Your task to perform on an android device: open app "Microsoft Outlook" (install if not already installed) and go to login screen Image 0: 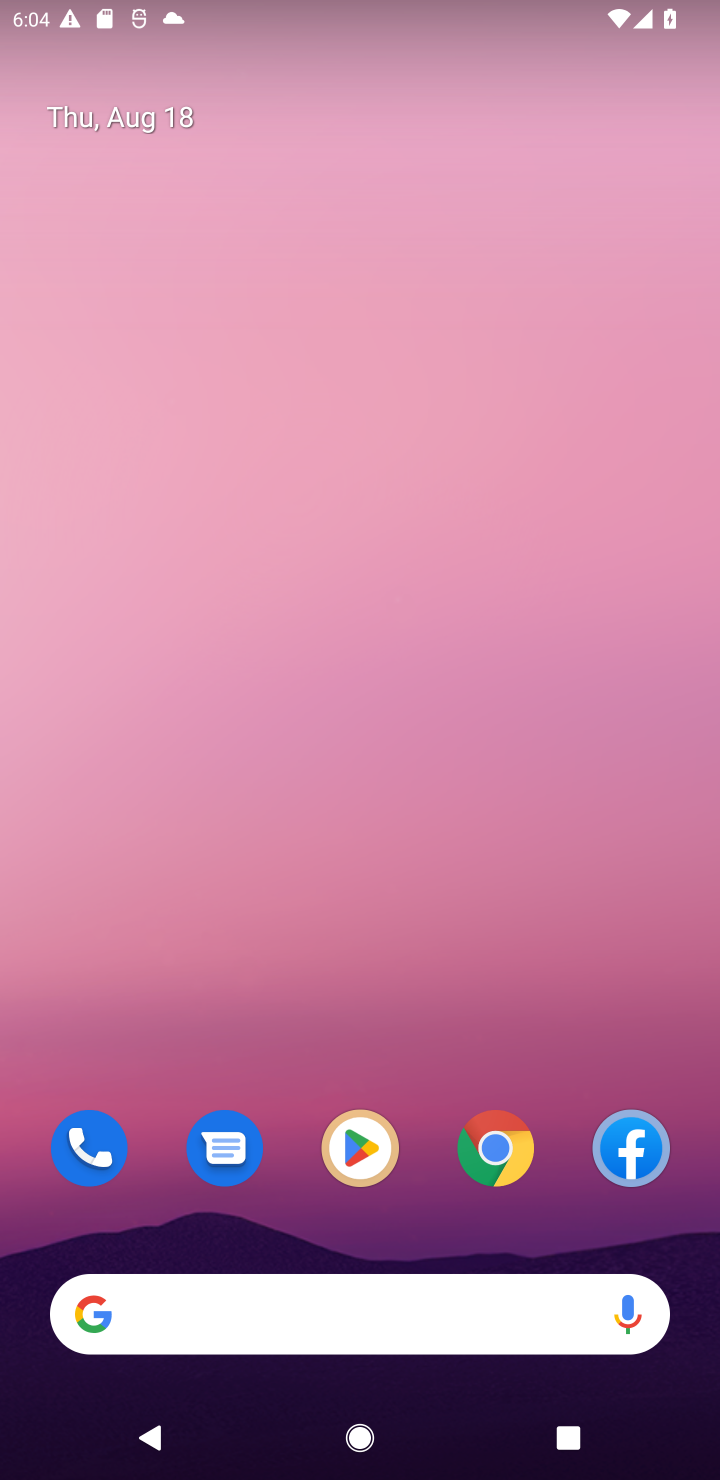
Step 0: drag from (251, 1086) to (41, 107)
Your task to perform on an android device: open app "Microsoft Outlook" (install if not already installed) and go to login screen Image 1: 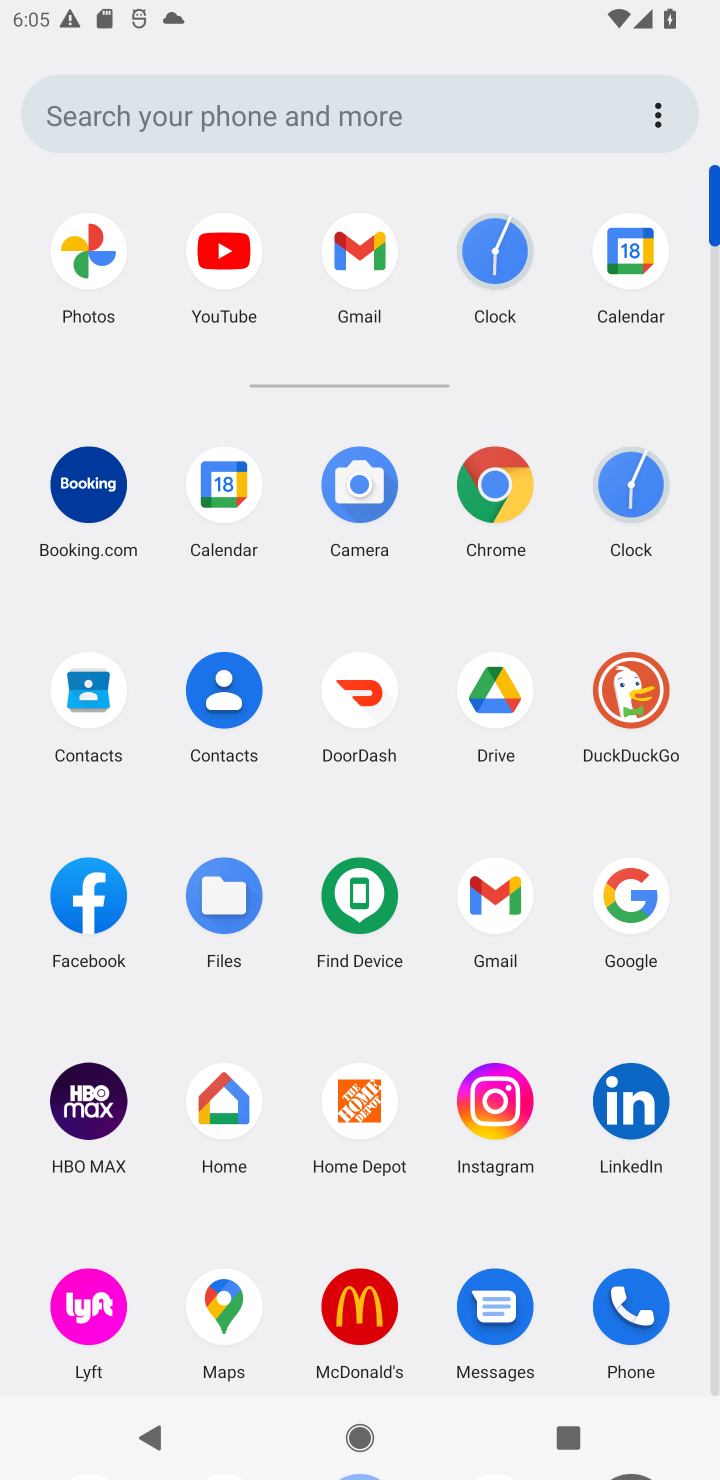
Step 1: drag from (657, 1111) to (565, 532)
Your task to perform on an android device: open app "Microsoft Outlook" (install if not already installed) and go to login screen Image 2: 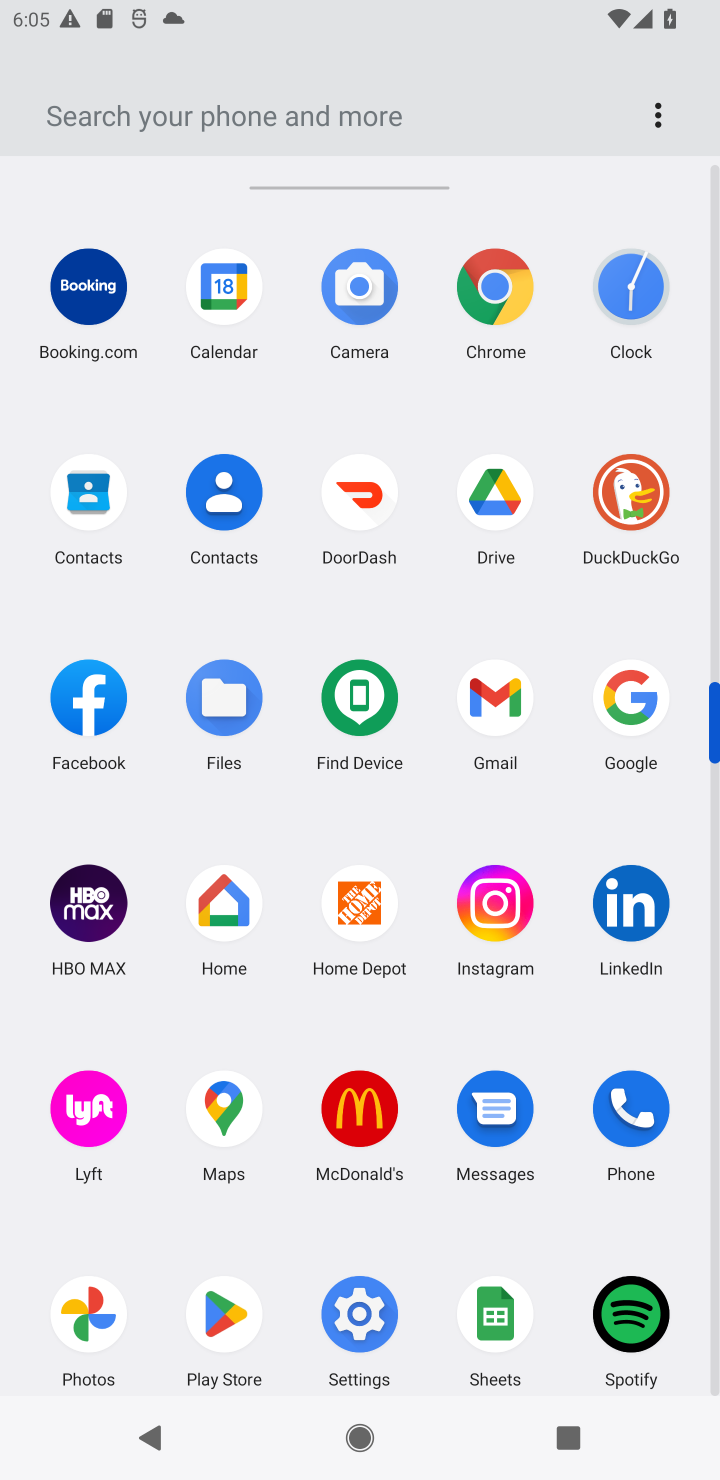
Step 2: click (232, 1315)
Your task to perform on an android device: open app "Microsoft Outlook" (install if not already installed) and go to login screen Image 3: 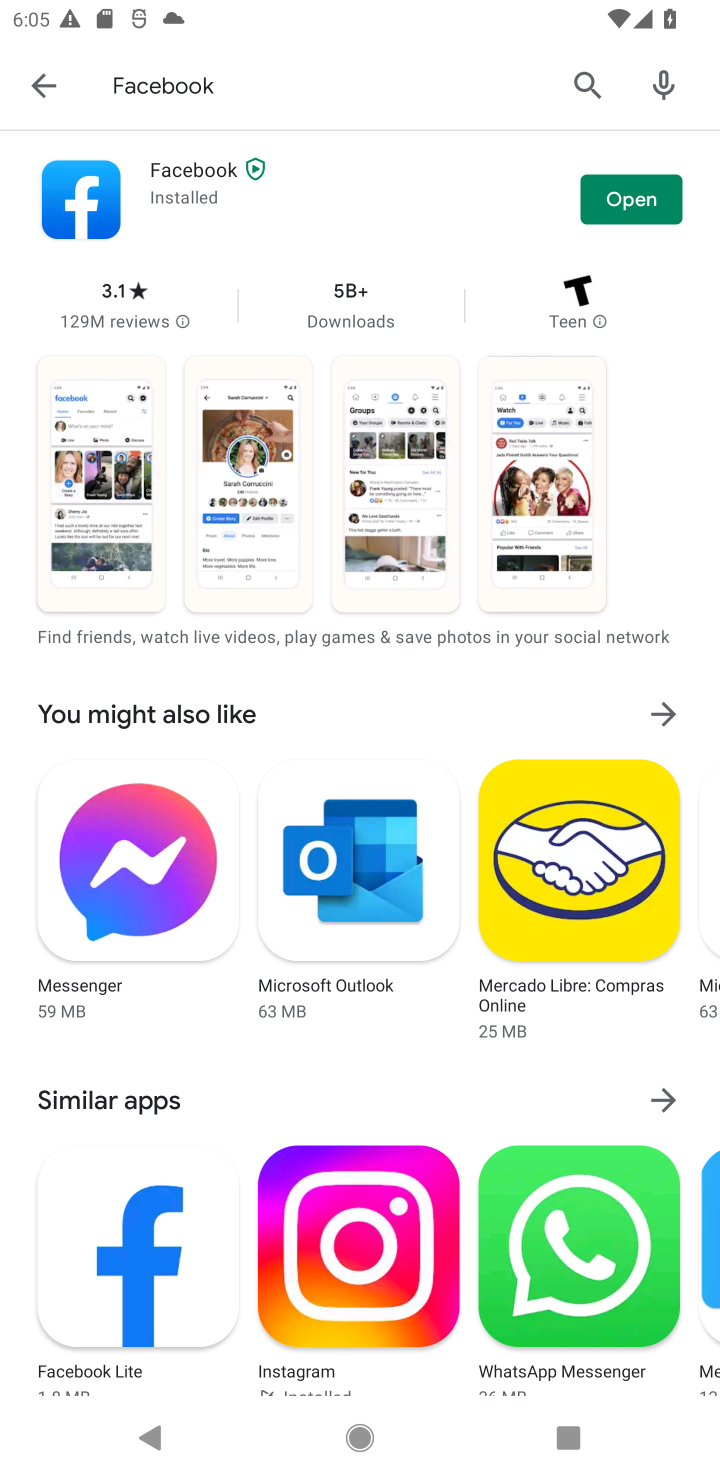
Step 3: press back button
Your task to perform on an android device: open app "Microsoft Outlook" (install if not already installed) and go to login screen Image 4: 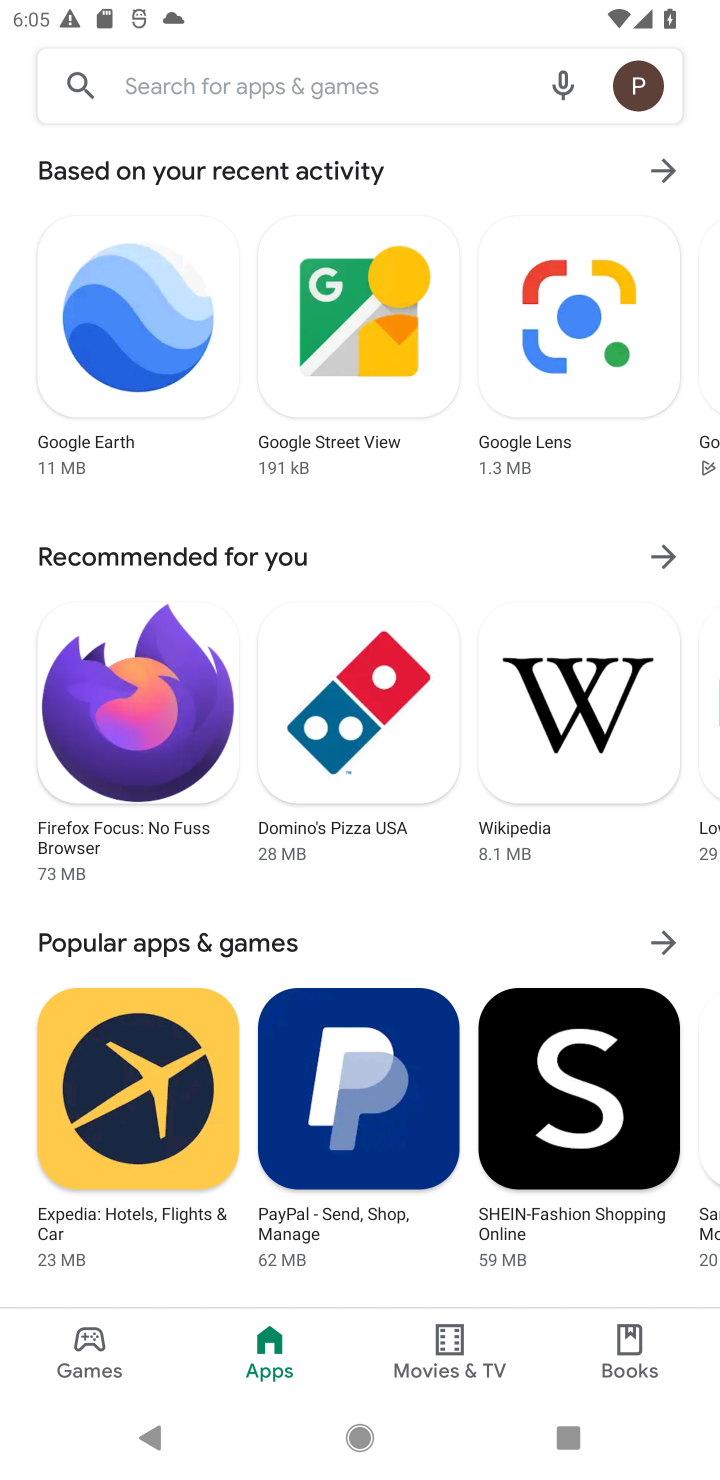
Step 4: click (329, 90)
Your task to perform on an android device: open app "Microsoft Outlook" (install if not already installed) and go to login screen Image 5: 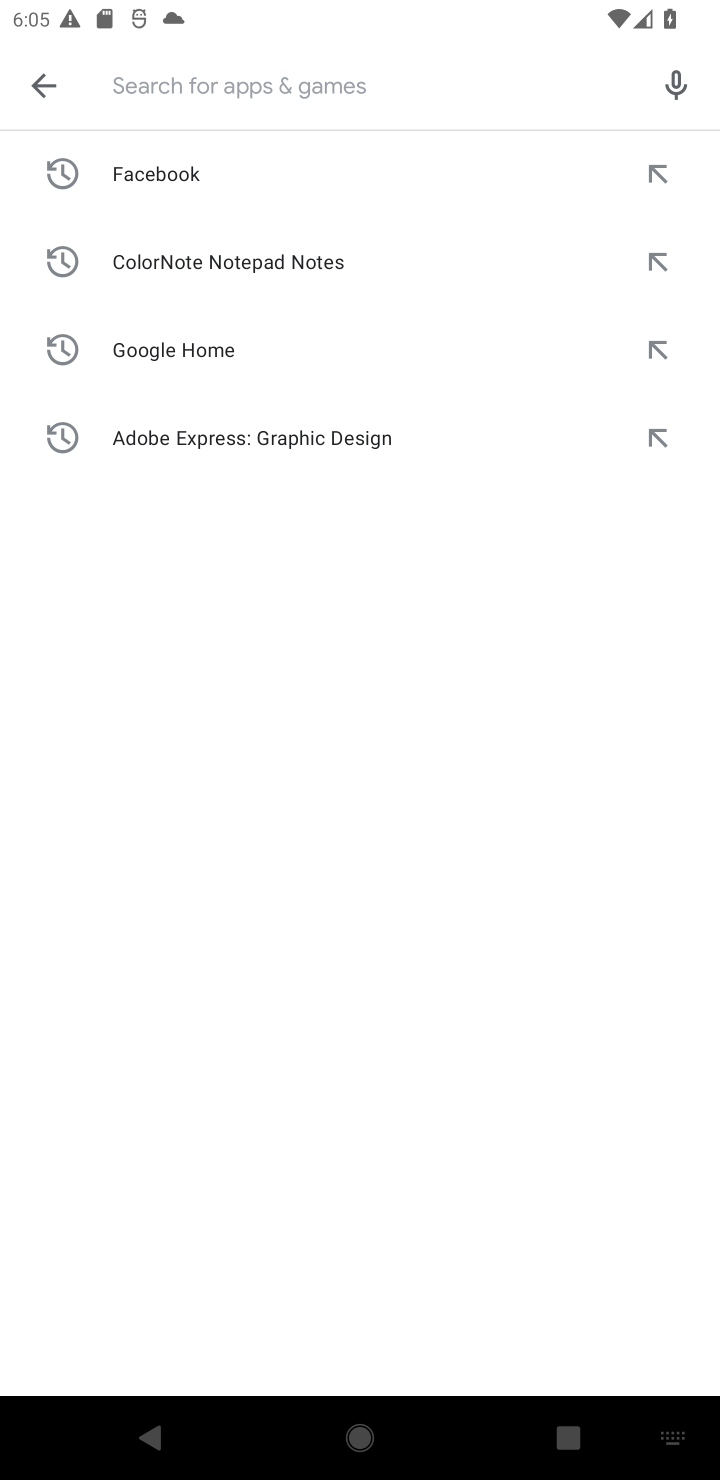
Step 5: type "Microsoft Outlook"
Your task to perform on an android device: open app "Microsoft Outlook" (install if not already installed) and go to login screen Image 6: 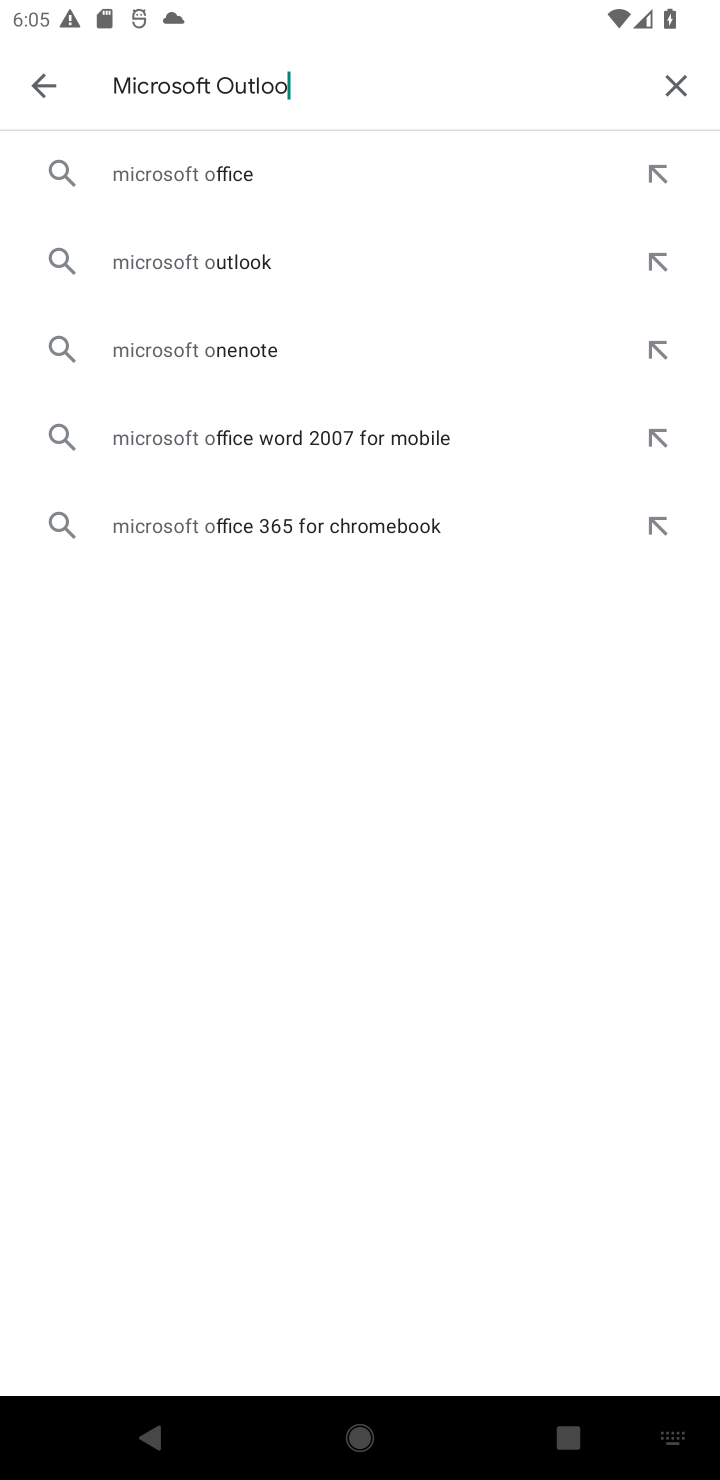
Step 6: press enter
Your task to perform on an android device: open app "Microsoft Outlook" (install if not already installed) and go to login screen Image 7: 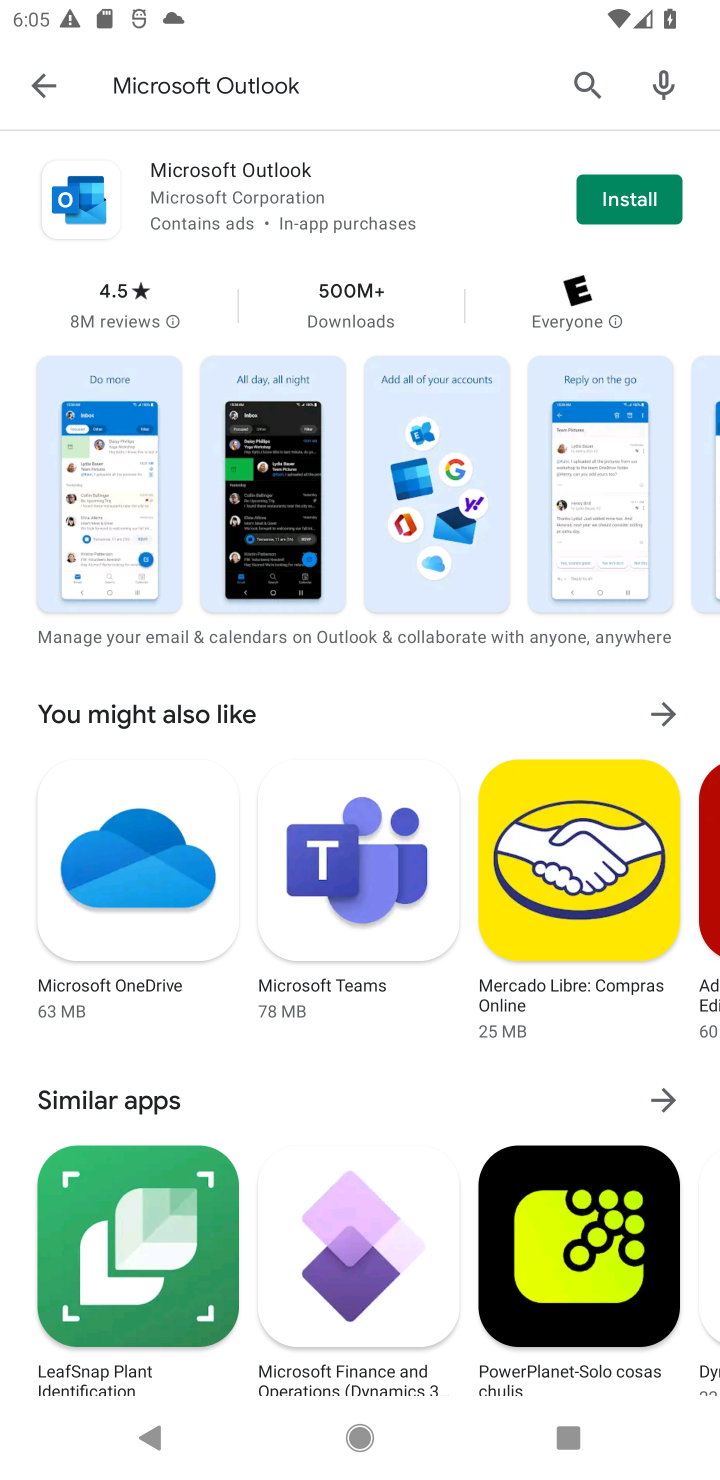
Step 7: click (623, 192)
Your task to perform on an android device: open app "Microsoft Outlook" (install if not already installed) and go to login screen Image 8: 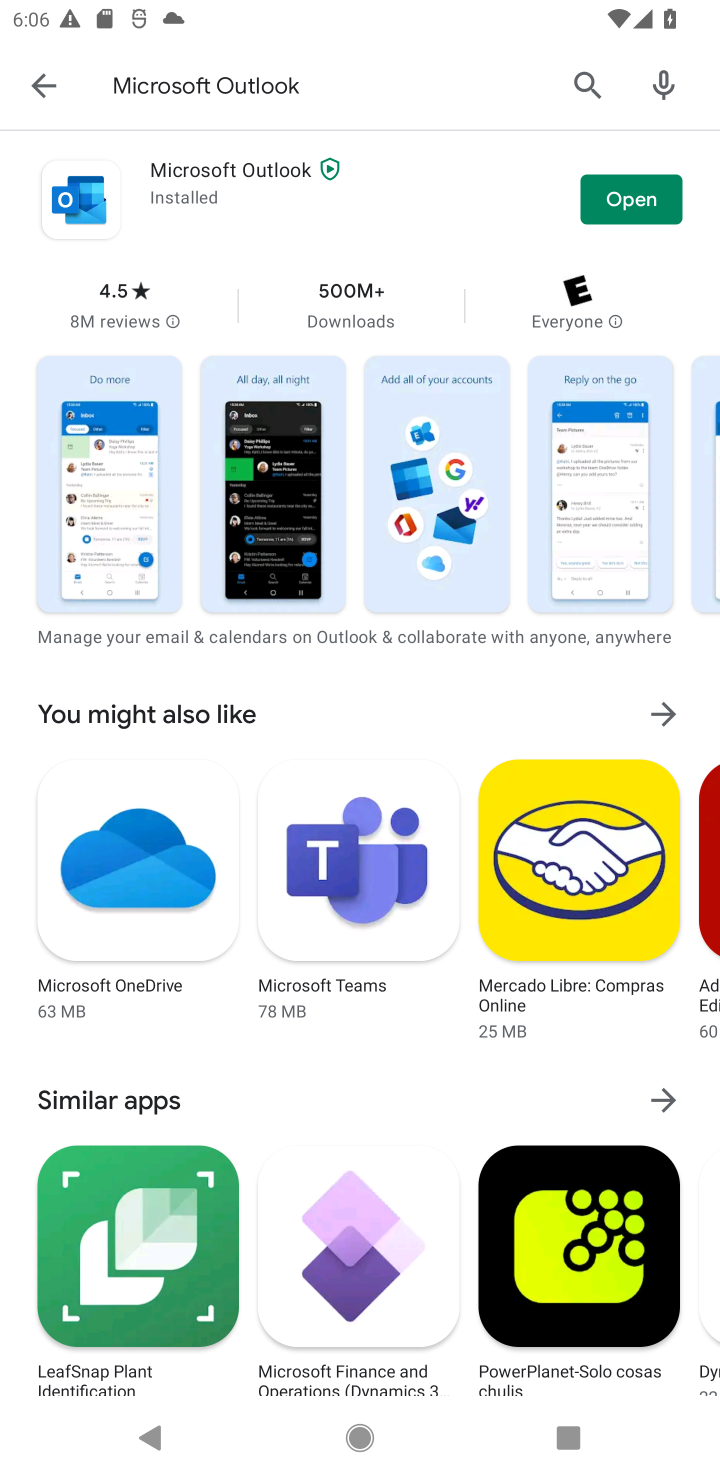
Step 8: click (658, 200)
Your task to perform on an android device: open app "Microsoft Outlook" (install if not already installed) and go to login screen Image 9: 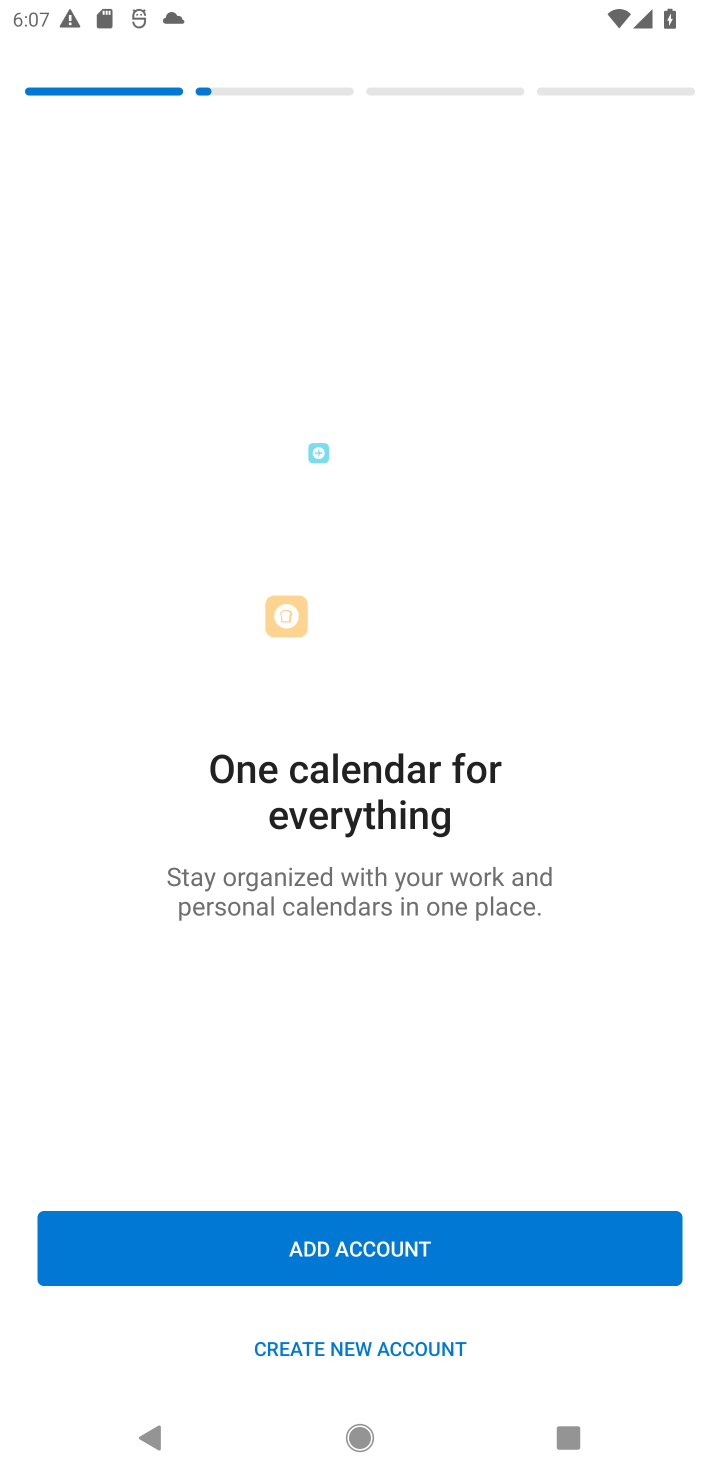
Step 9: click (324, 1243)
Your task to perform on an android device: open app "Microsoft Outlook" (install if not already installed) and go to login screen Image 10: 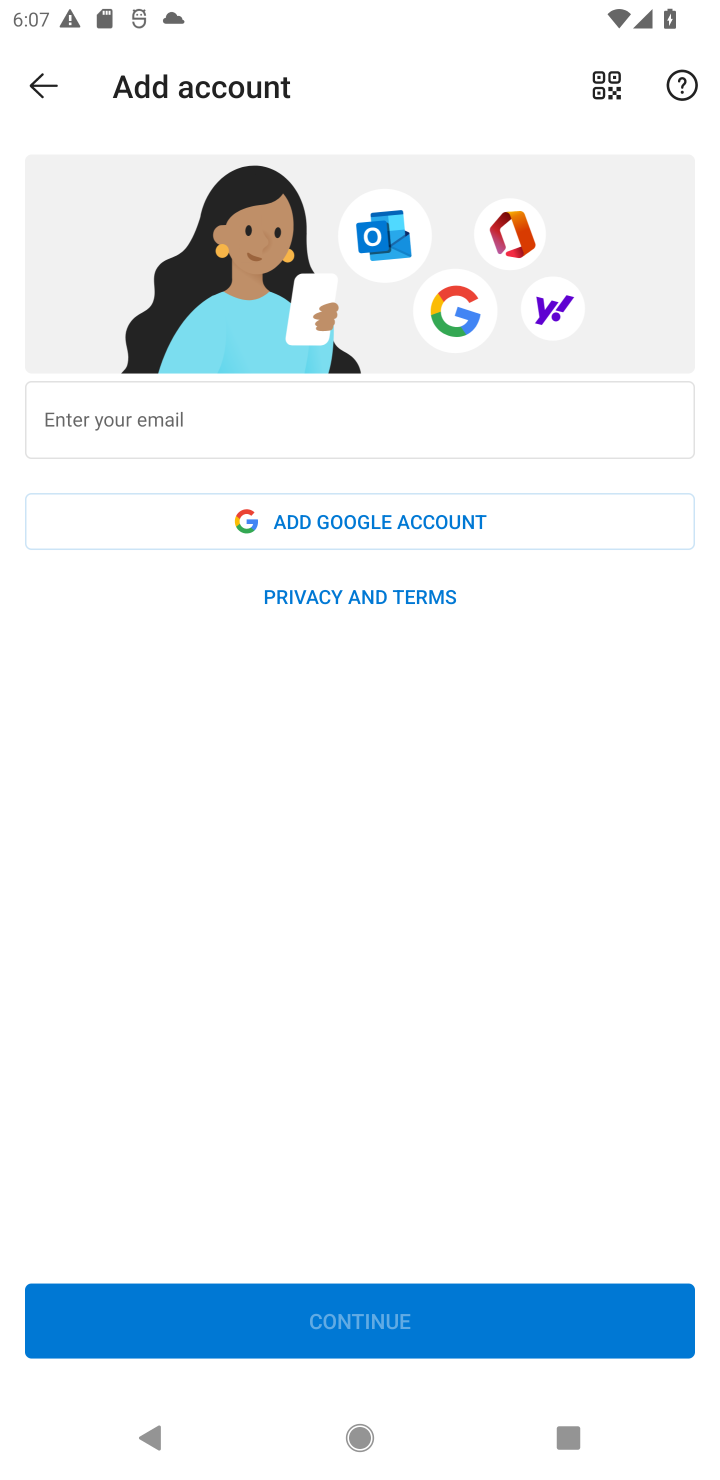
Step 10: click (413, 1332)
Your task to perform on an android device: open app "Microsoft Outlook" (install if not already installed) and go to login screen Image 11: 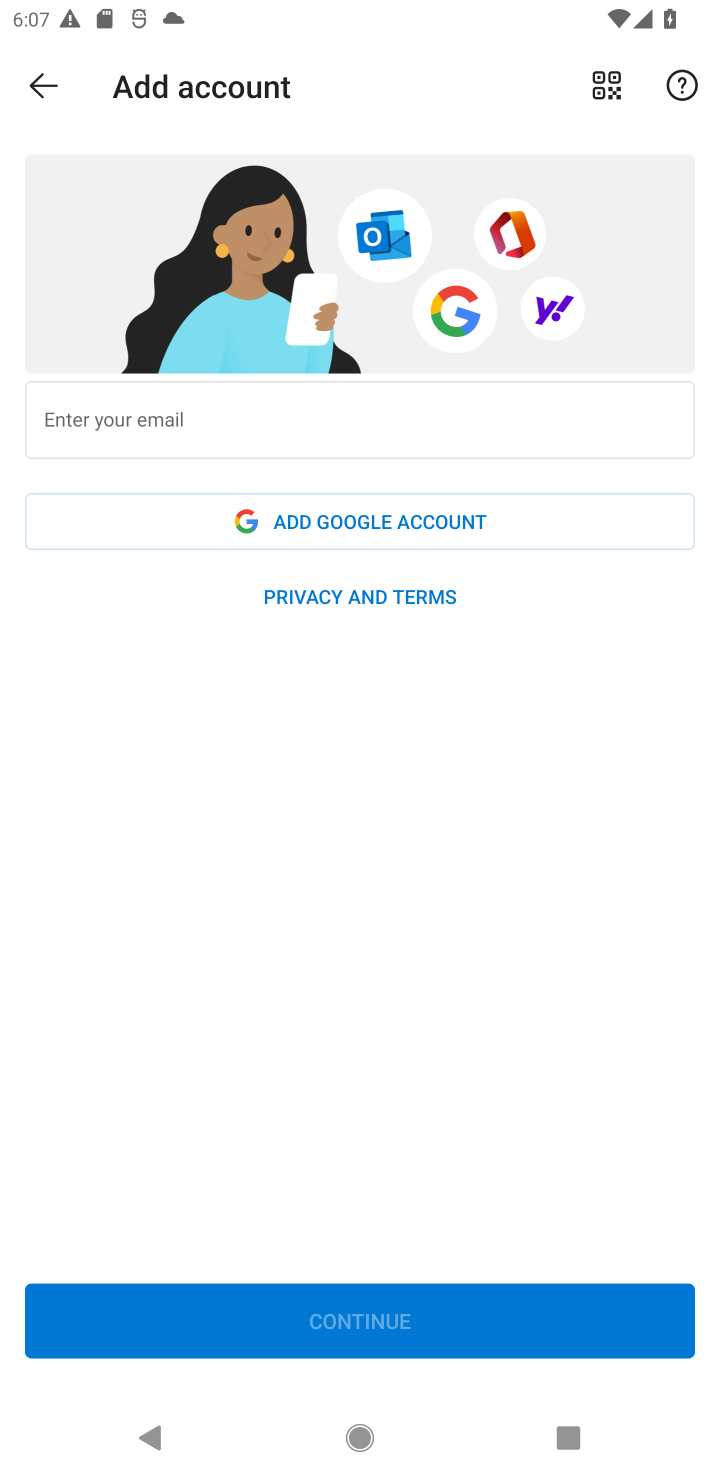
Step 11: click (449, 522)
Your task to perform on an android device: open app "Microsoft Outlook" (install if not already installed) and go to login screen Image 12: 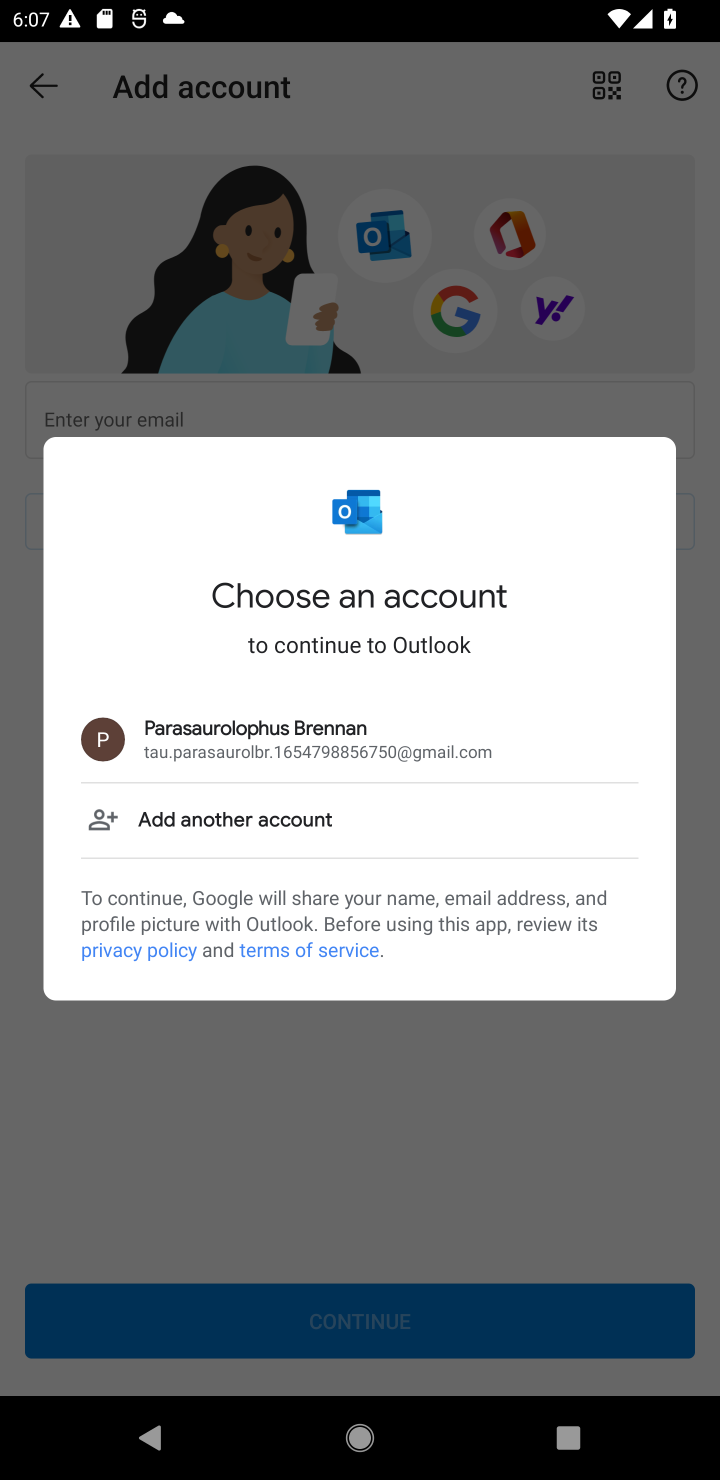
Step 12: task complete